Your task to perform on an android device: Open eBay Image 0: 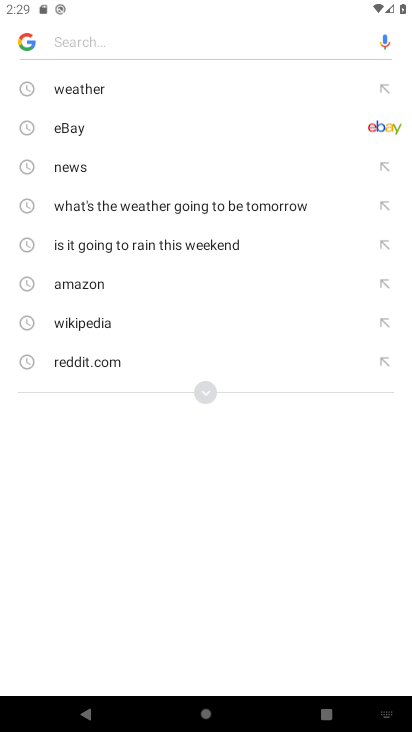
Step 0: press home button
Your task to perform on an android device: Open eBay Image 1: 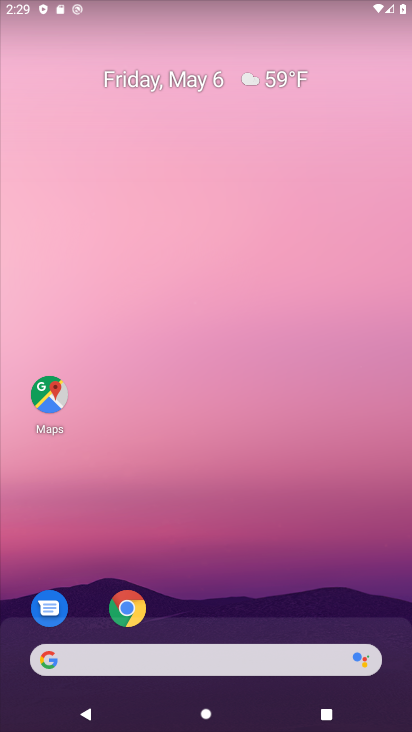
Step 1: click (132, 607)
Your task to perform on an android device: Open eBay Image 2: 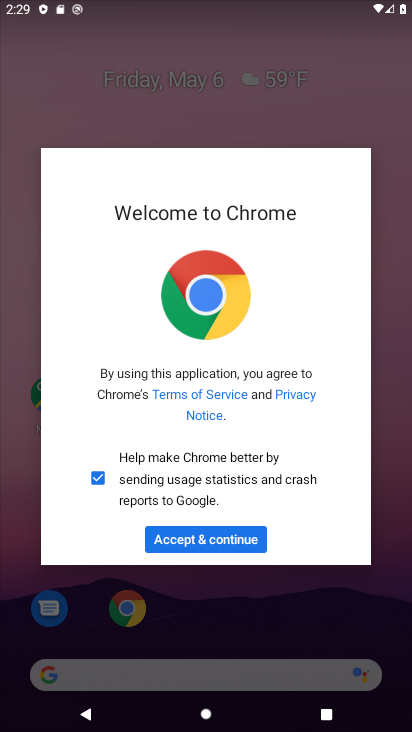
Step 2: click (182, 540)
Your task to perform on an android device: Open eBay Image 3: 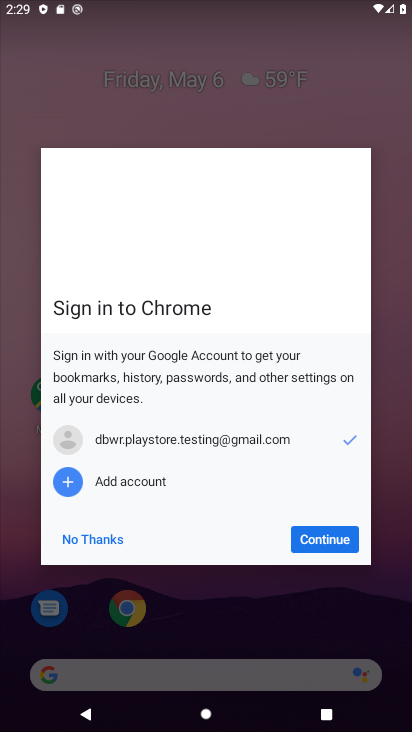
Step 3: click (105, 539)
Your task to perform on an android device: Open eBay Image 4: 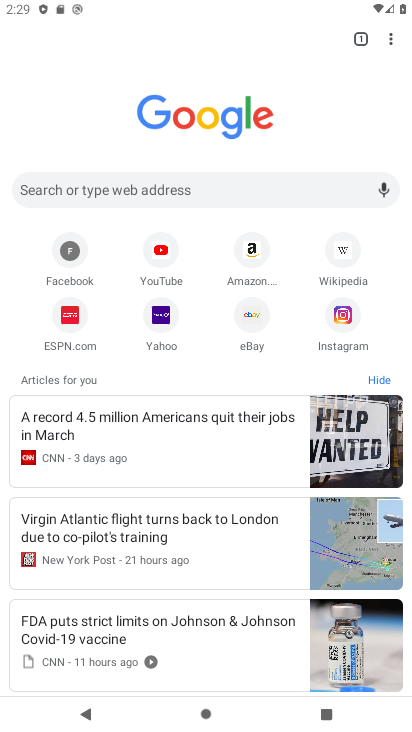
Step 4: click (250, 317)
Your task to perform on an android device: Open eBay Image 5: 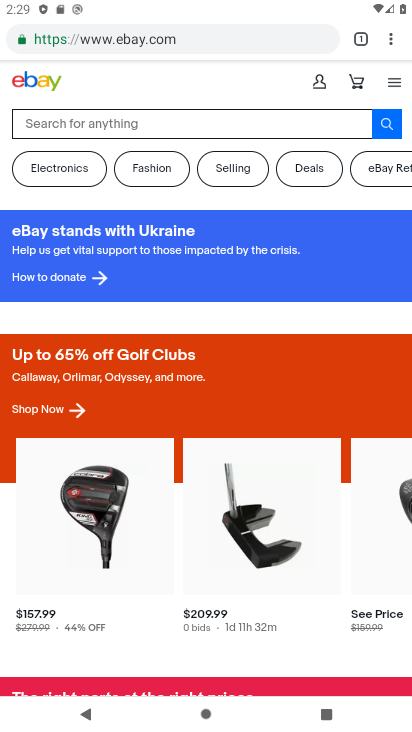
Step 5: task complete